Your task to perform on an android device: add a label to a message in the gmail app Image 0: 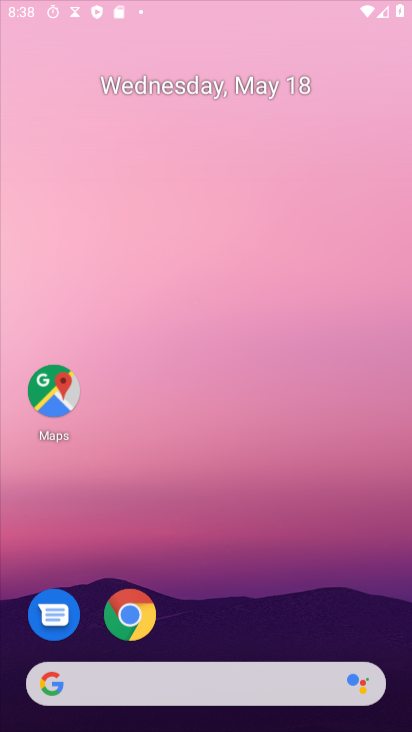
Step 0: drag from (242, 585) to (264, 195)
Your task to perform on an android device: add a label to a message in the gmail app Image 1: 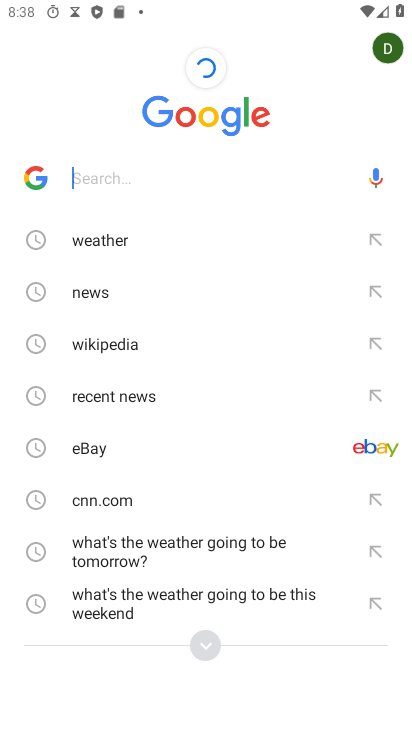
Step 1: press home button
Your task to perform on an android device: add a label to a message in the gmail app Image 2: 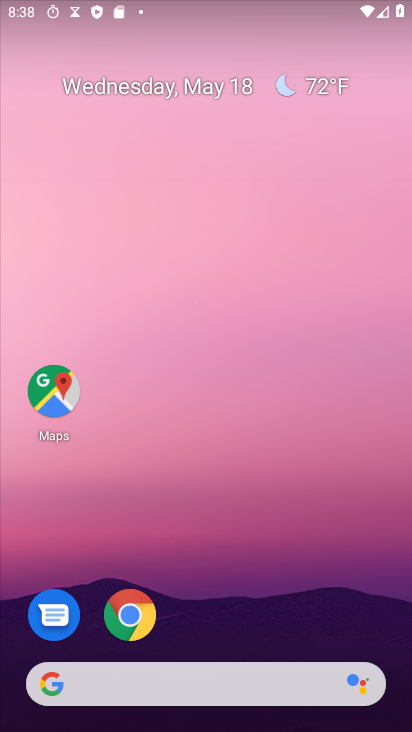
Step 2: drag from (256, 589) to (272, 166)
Your task to perform on an android device: add a label to a message in the gmail app Image 3: 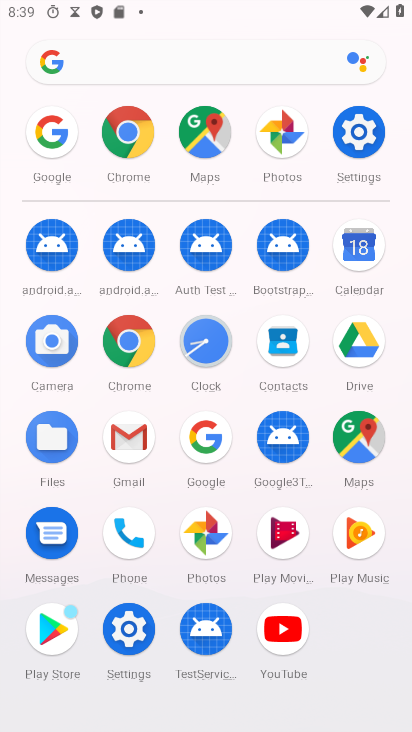
Step 3: click (138, 440)
Your task to perform on an android device: add a label to a message in the gmail app Image 4: 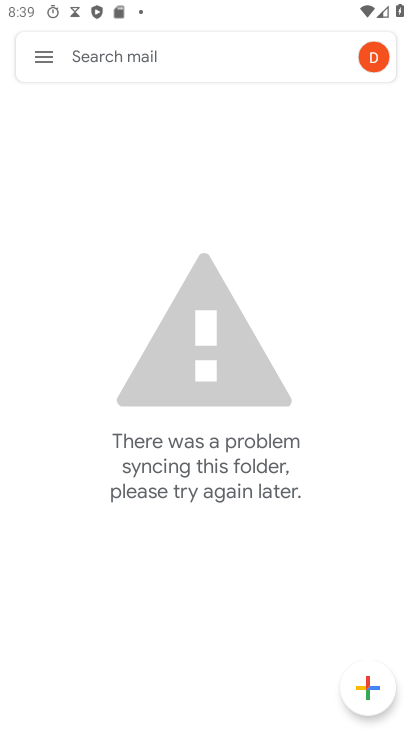
Step 4: click (43, 56)
Your task to perform on an android device: add a label to a message in the gmail app Image 5: 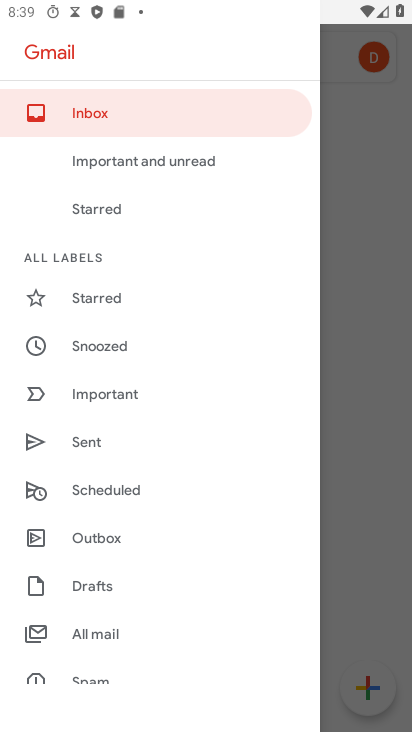
Step 5: click (118, 633)
Your task to perform on an android device: add a label to a message in the gmail app Image 6: 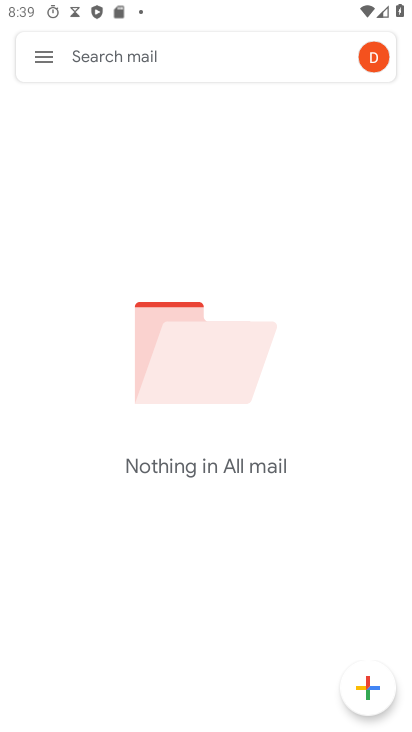
Step 6: task complete